Your task to perform on an android device: Is it going to rain today? Image 0: 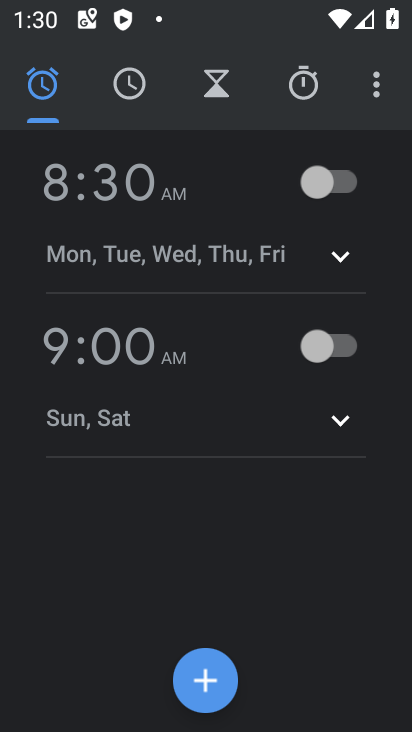
Step 0: press home button
Your task to perform on an android device: Is it going to rain today? Image 1: 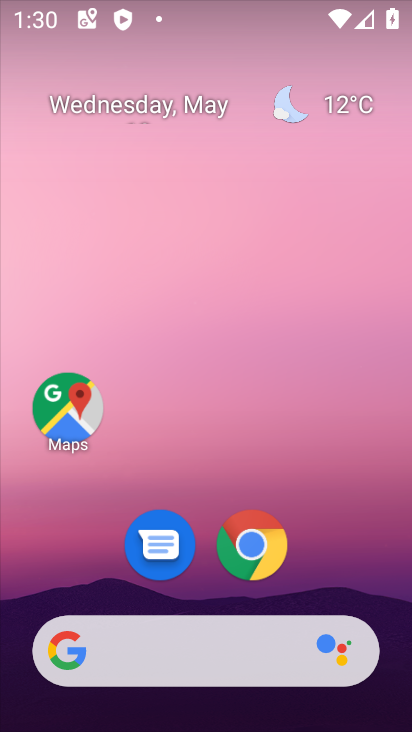
Step 1: click (330, 92)
Your task to perform on an android device: Is it going to rain today? Image 2: 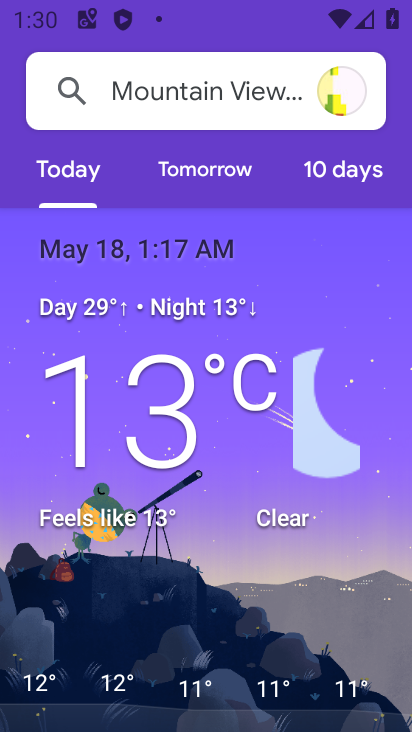
Step 2: task complete